Your task to perform on an android device: Search for Italian restaurants on Maps Image 0: 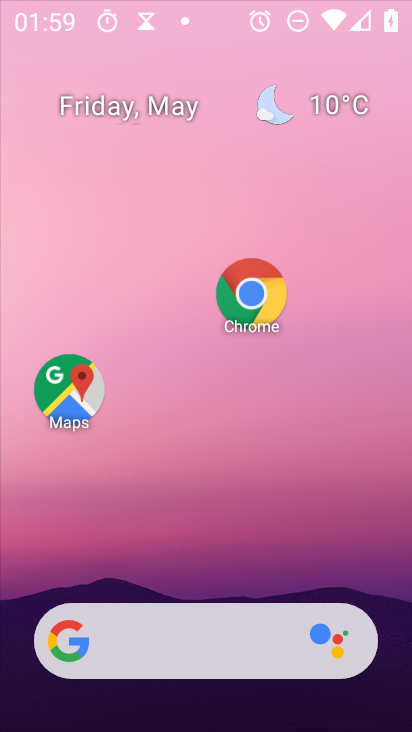
Step 0: press home button
Your task to perform on an android device: Search for Italian restaurants on Maps Image 1: 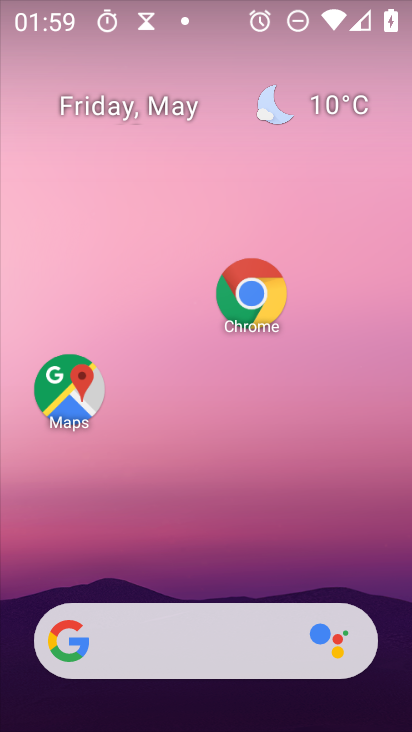
Step 1: click (80, 400)
Your task to perform on an android device: Search for Italian restaurants on Maps Image 2: 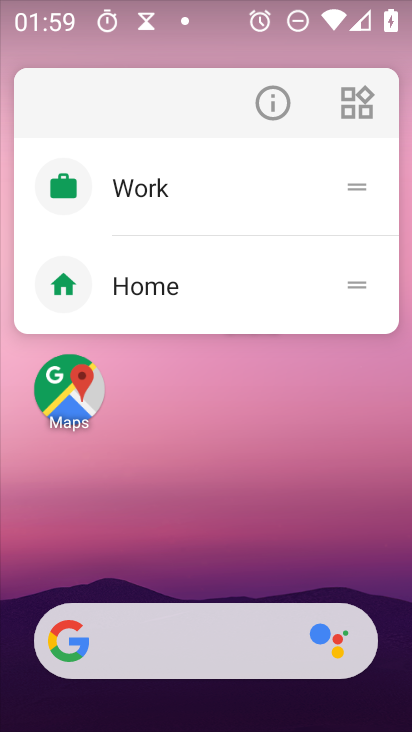
Step 2: click (72, 408)
Your task to perform on an android device: Search for Italian restaurants on Maps Image 3: 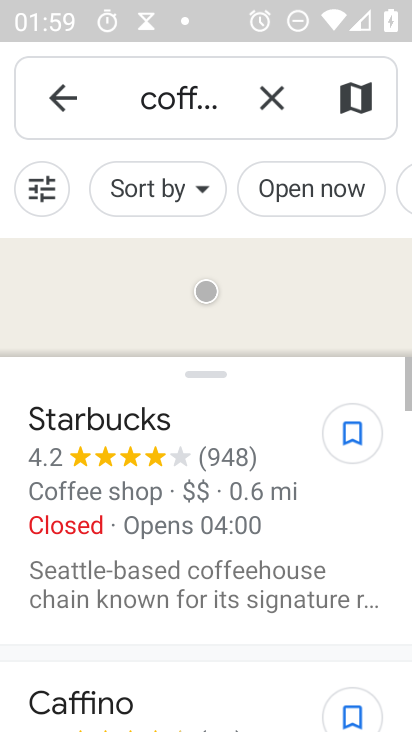
Step 3: click (266, 99)
Your task to perform on an android device: Search for Italian restaurants on Maps Image 4: 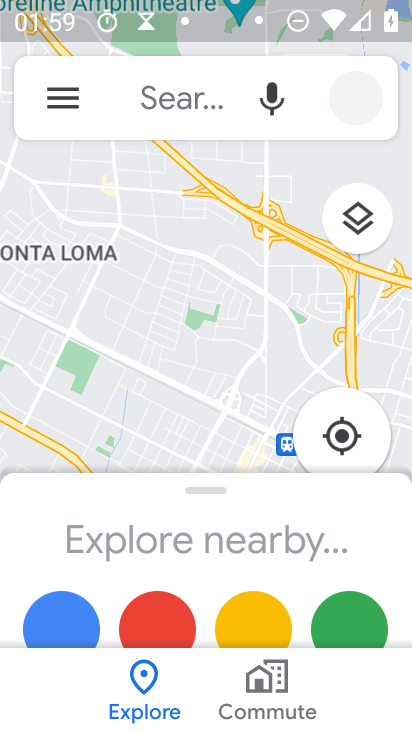
Step 4: click (190, 97)
Your task to perform on an android device: Search for Italian restaurants on Maps Image 5: 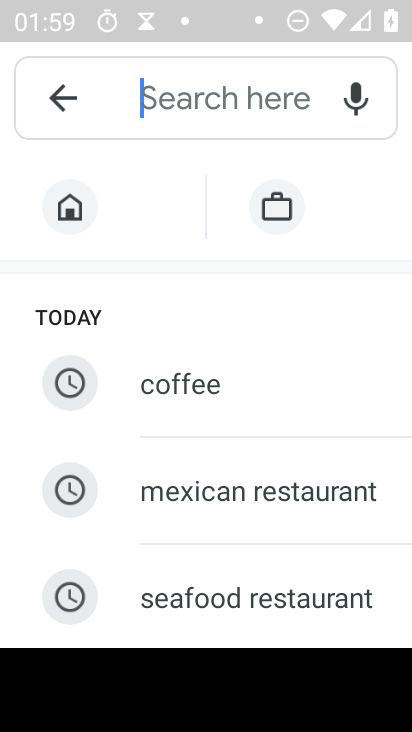
Step 5: drag from (224, 570) to (268, 293)
Your task to perform on an android device: Search for Italian restaurants on Maps Image 6: 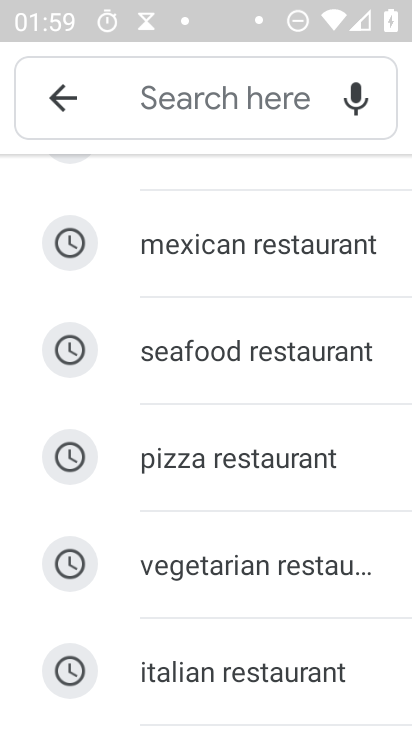
Step 6: click (219, 662)
Your task to perform on an android device: Search for Italian restaurants on Maps Image 7: 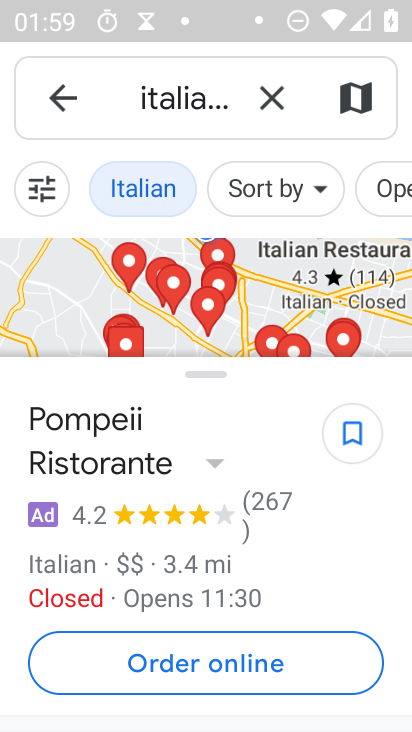
Step 7: task complete